Your task to perform on an android device: set the stopwatch Image 0: 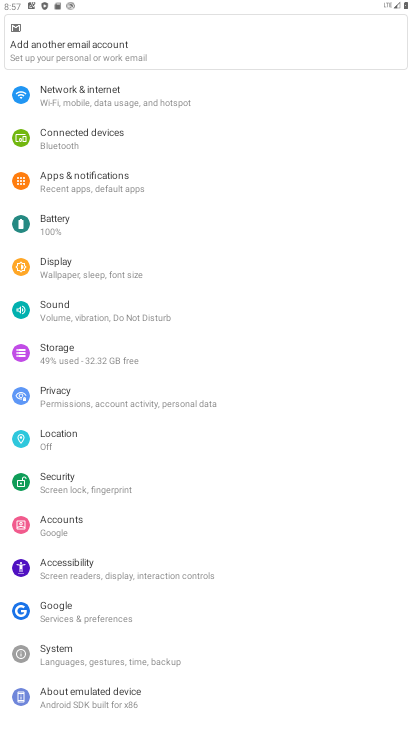
Step 0: press home button
Your task to perform on an android device: set the stopwatch Image 1: 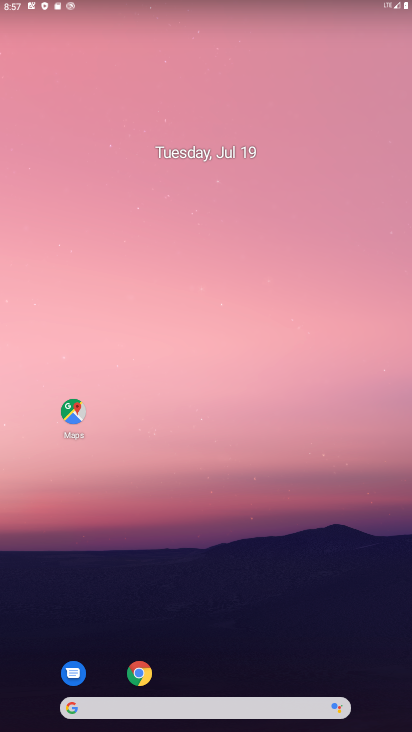
Step 1: drag from (354, 698) to (217, 10)
Your task to perform on an android device: set the stopwatch Image 2: 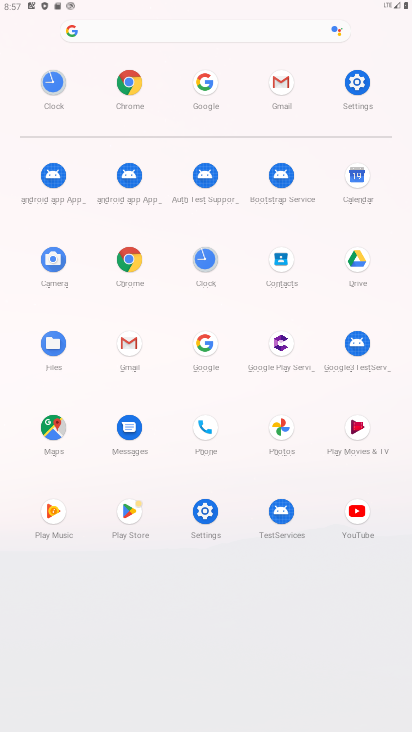
Step 2: click (211, 257)
Your task to perform on an android device: set the stopwatch Image 3: 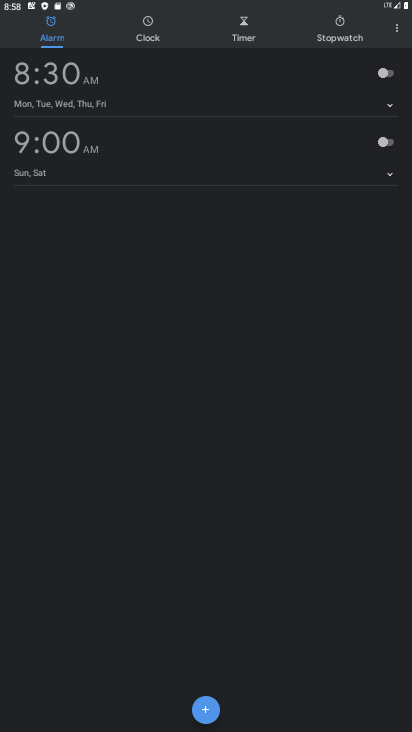
Step 3: press home button
Your task to perform on an android device: set the stopwatch Image 4: 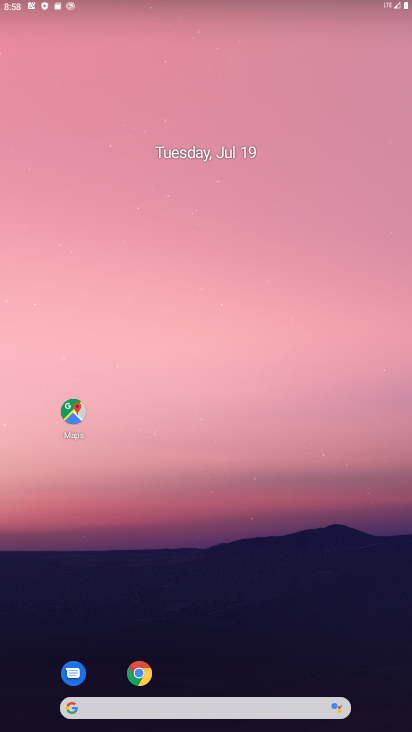
Step 4: drag from (374, 704) to (258, 57)
Your task to perform on an android device: set the stopwatch Image 5: 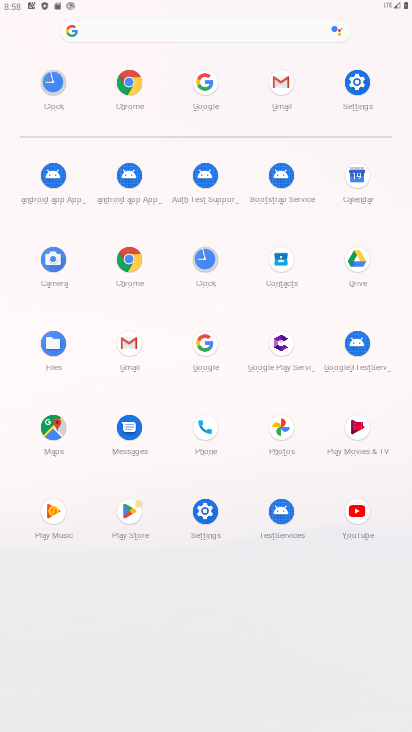
Step 5: click (213, 268)
Your task to perform on an android device: set the stopwatch Image 6: 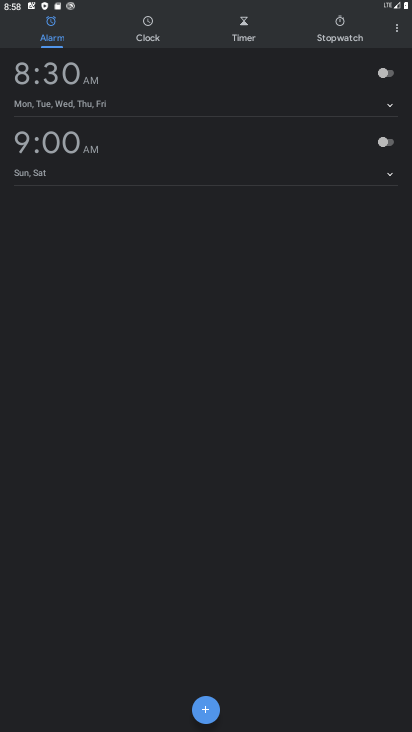
Step 6: click (333, 20)
Your task to perform on an android device: set the stopwatch Image 7: 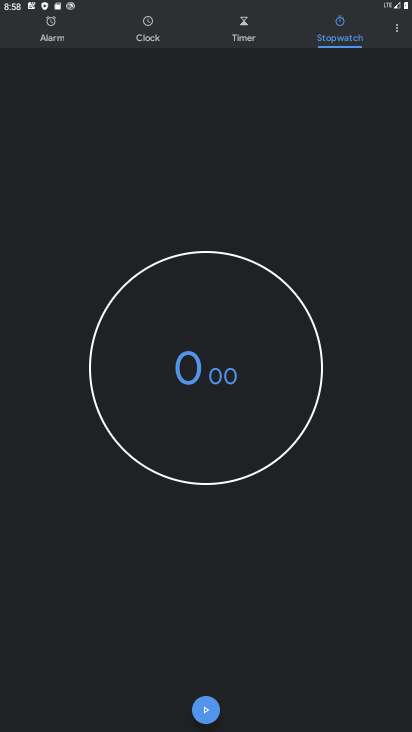
Step 7: click (202, 708)
Your task to perform on an android device: set the stopwatch Image 8: 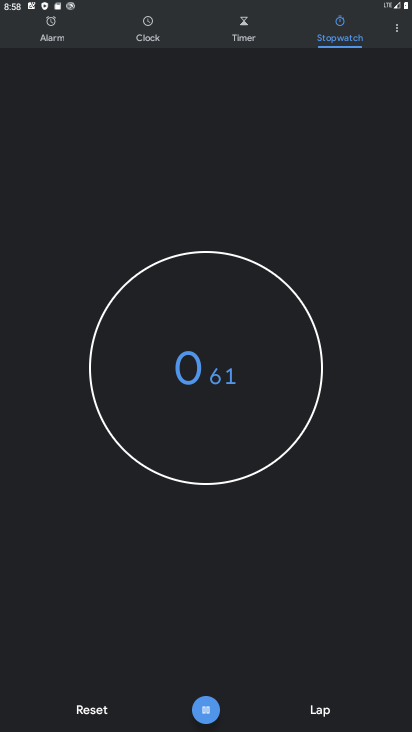
Step 8: click (202, 708)
Your task to perform on an android device: set the stopwatch Image 9: 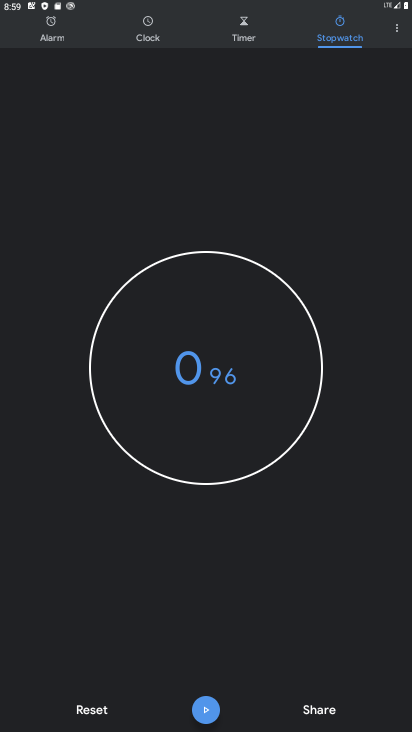
Step 9: task complete